Your task to perform on an android device: Open Yahoo.com Image 0: 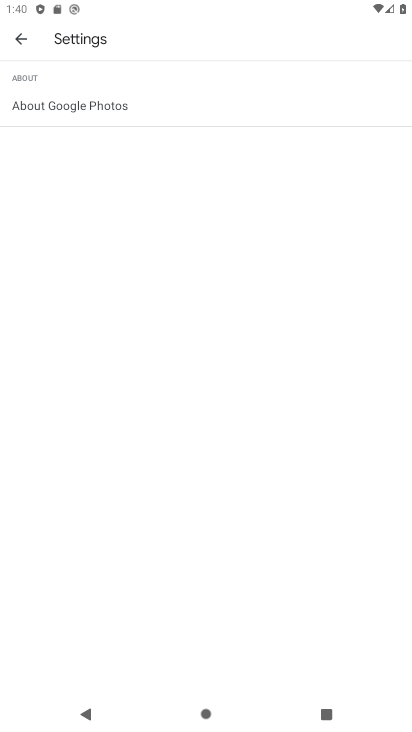
Step 0: press home button
Your task to perform on an android device: Open Yahoo.com Image 1: 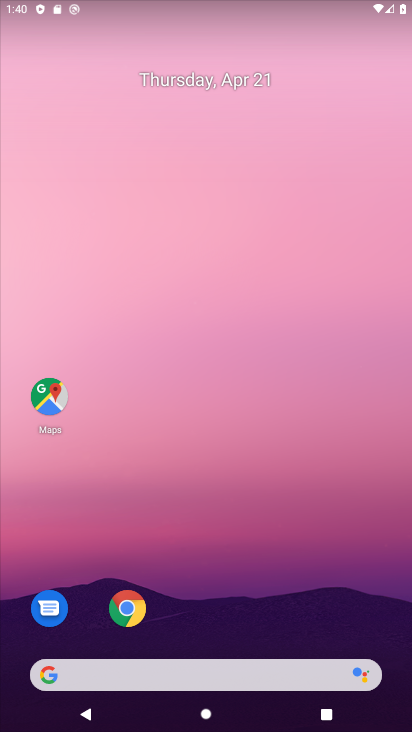
Step 1: click (128, 617)
Your task to perform on an android device: Open Yahoo.com Image 2: 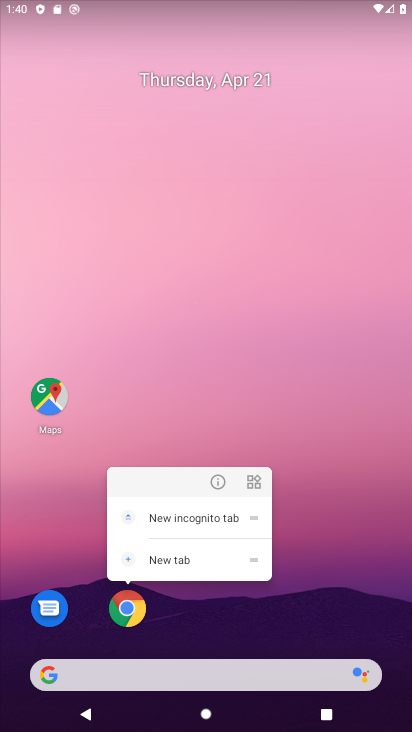
Step 2: click (134, 603)
Your task to perform on an android device: Open Yahoo.com Image 3: 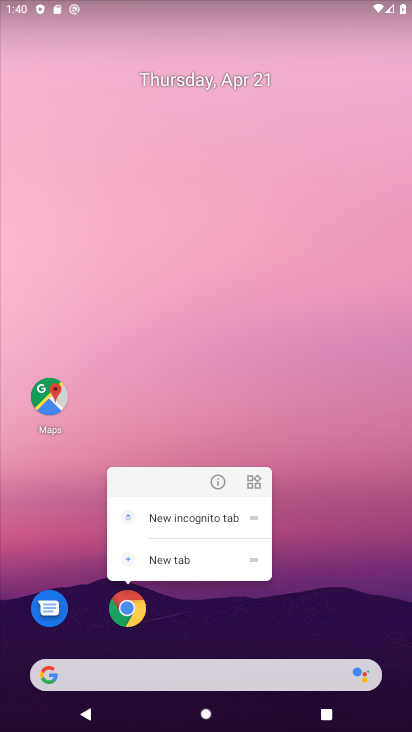
Step 3: click (134, 601)
Your task to perform on an android device: Open Yahoo.com Image 4: 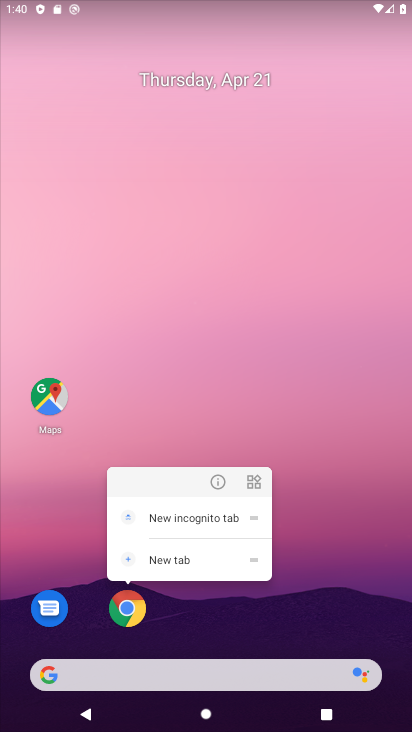
Step 4: click (134, 601)
Your task to perform on an android device: Open Yahoo.com Image 5: 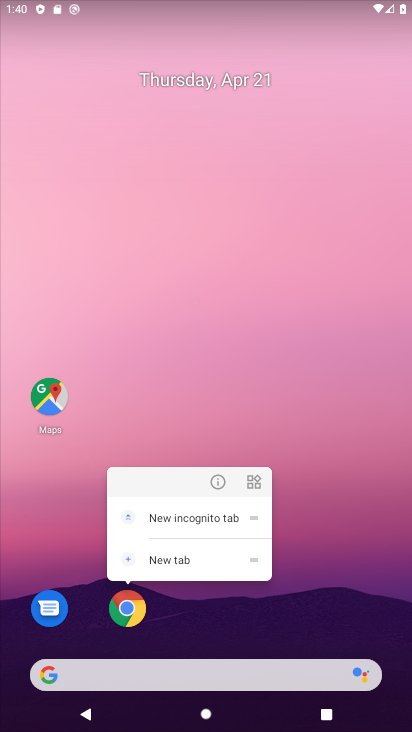
Step 5: click (134, 601)
Your task to perform on an android device: Open Yahoo.com Image 6: 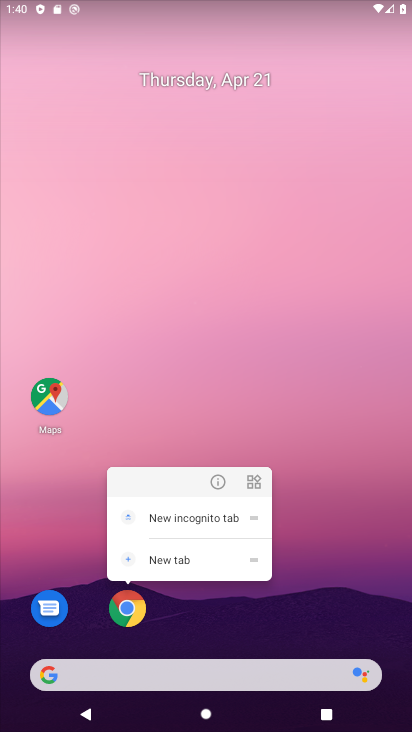
Step 6: click (134, 601)
Your task to perform on an android device: Open Yahoo.com Image 7: 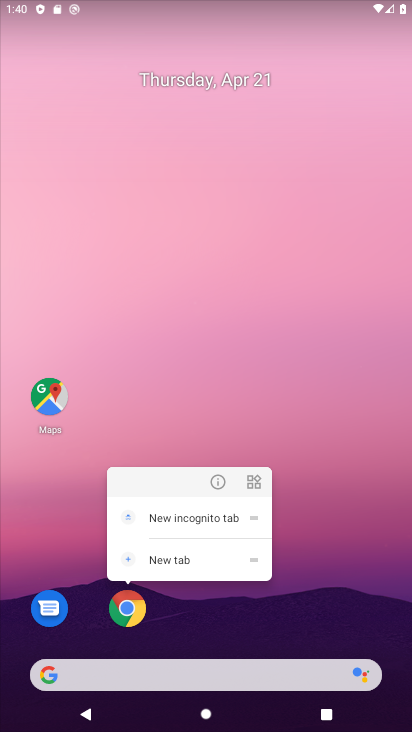
Step 7: click (134, 601)
Your task to perform on an android device: Open Yahoo.com Image 8: 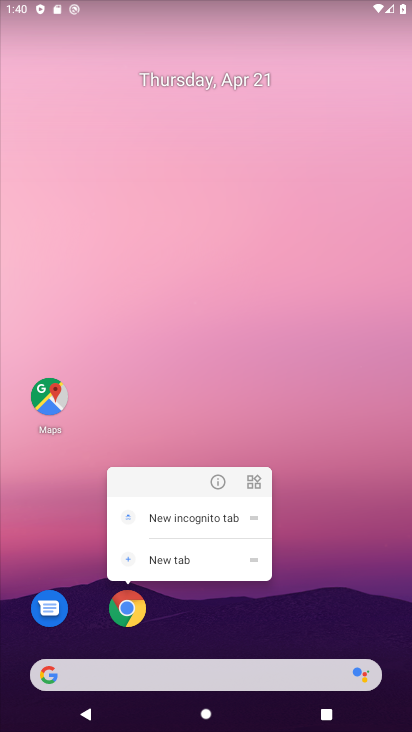
Step 8: click (134, 601)
Your task to perform on an android device: Open Yahoo.com Image 9: 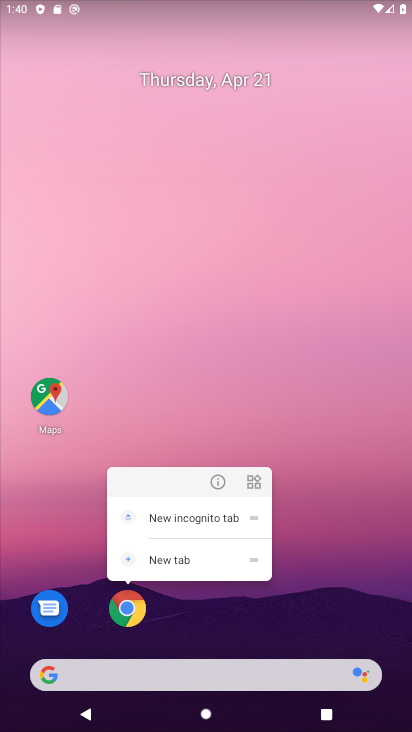
Step 9: click (134, 601)
Your task to perform on an android device: Open Yahoo.com Image 10: 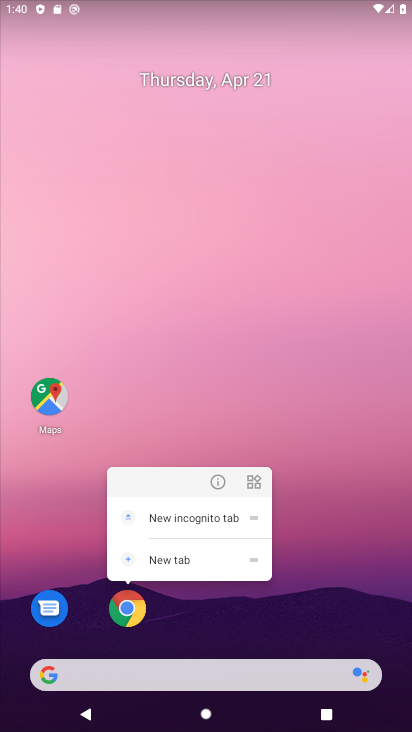
Step 10: click (134, 601)
Your task to perform on an android device: Open Yahoo.com Image 11: 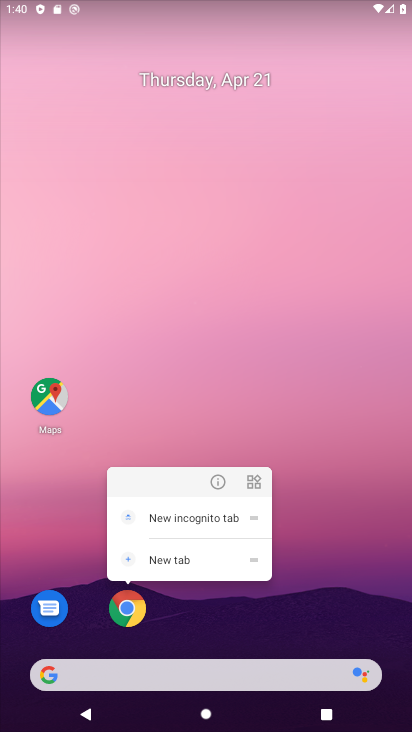
Step 11: click (134, 601)
Your task to perform on an android device: Open Yahoo.com Image 12: 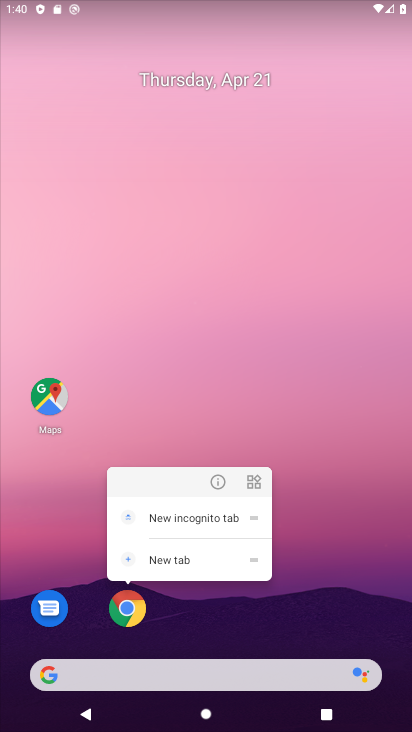
Step 12: click (134, 599)
Your task to perform on an android device: Open Yahoo.com Image 13: 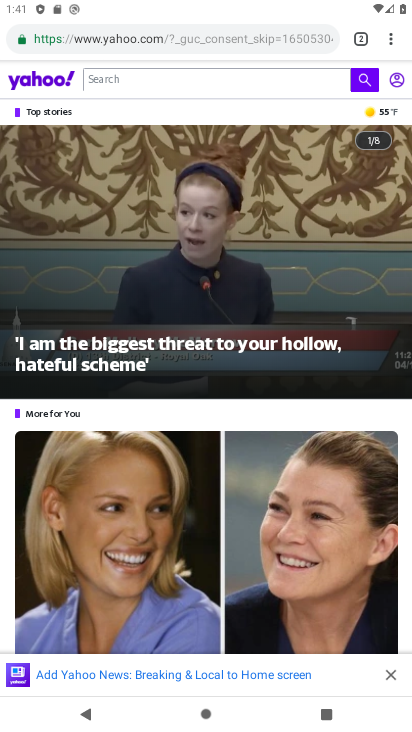
Step 13: task complete